Your task to perform on an android device: Check the news Image 0: 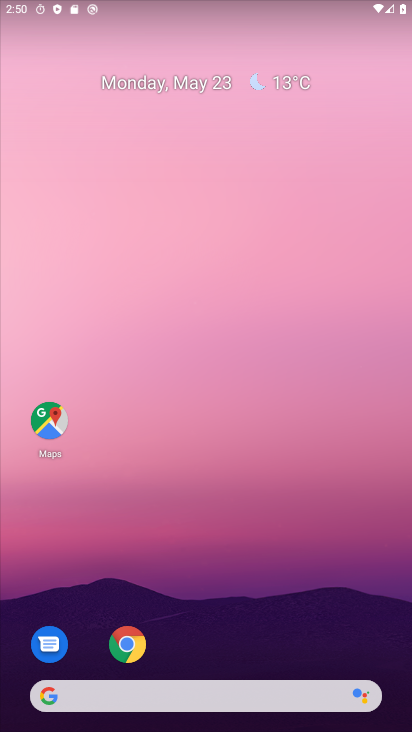
Step 0: click (147, 55)
Your task to perform on an android device: Check the news Image 1: 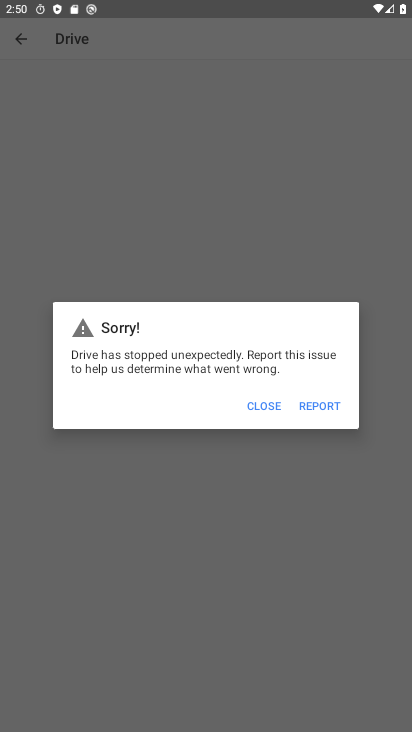
Step 1: press home button
Your task to perform on an android device: Check the news Image 2: 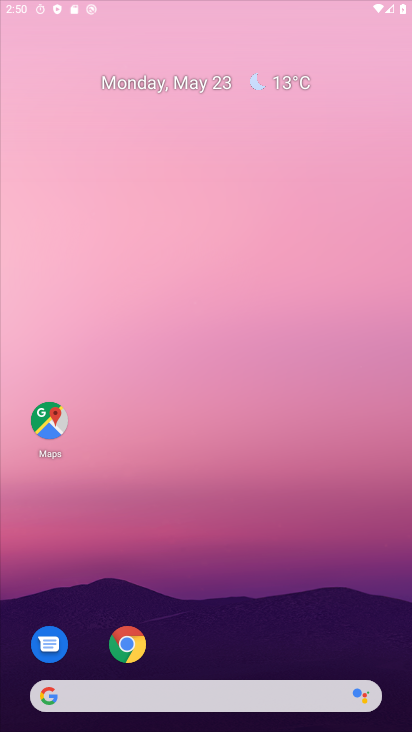
Step 2: drag from (178, 647) to (141, 0)
Your task to perform on an android device: Check the news Image 3: 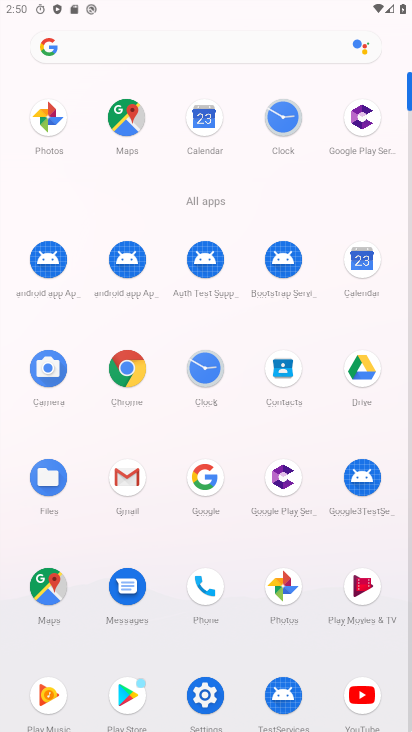
Step 3: click (194, 486)
Your task to perform on an android device: Check the news Image 4: 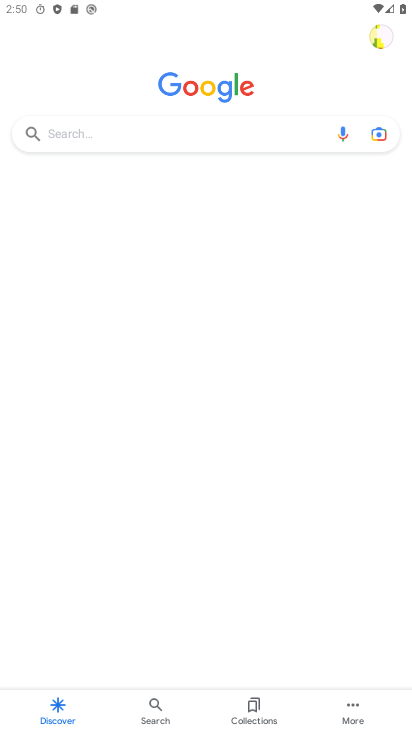
Step 4: click (200, 128)
Your task to perform on an android device: Check the news Image 5: 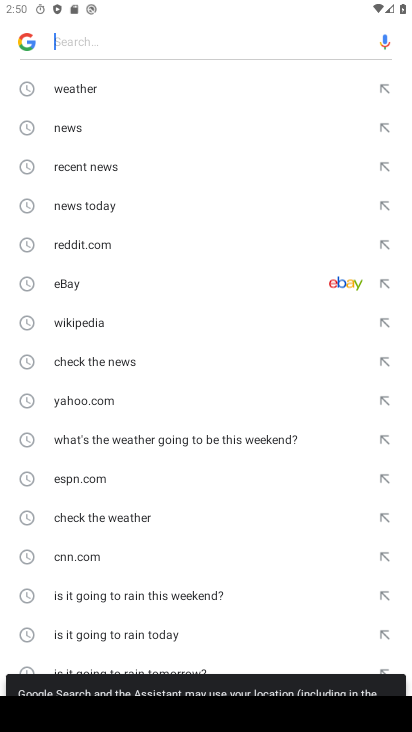
Step 5: click (57, 135)
Your task to perform on an android device: Check the news Image 6: 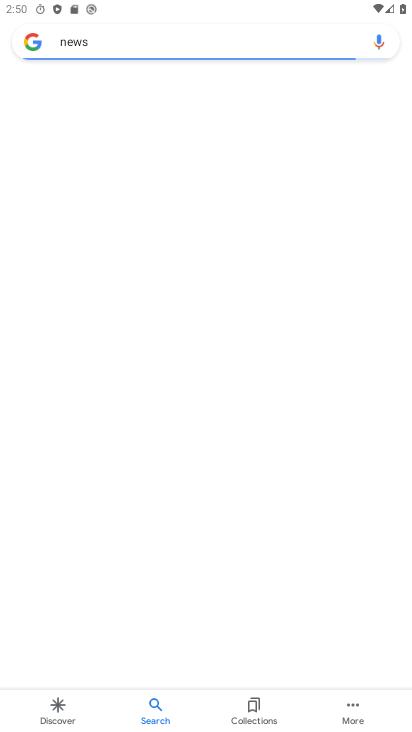
Step 6: task complete